Your task to perform on an android device: allow cookies in the chrome app Image 0: 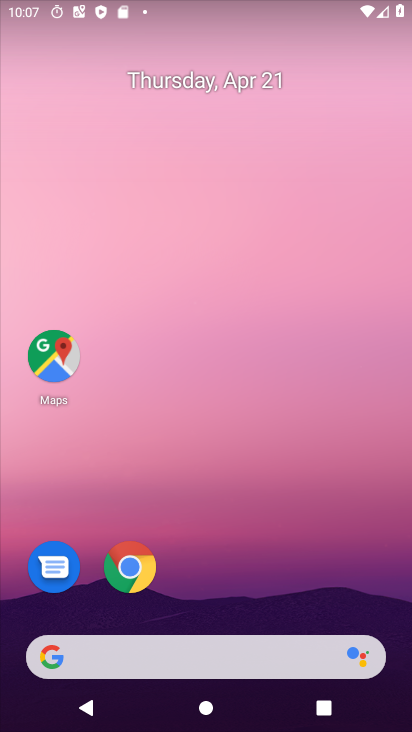
Step 0: click (124, 536)
Your task to perform on an android device: allow cookies in the chrome app Image 1: 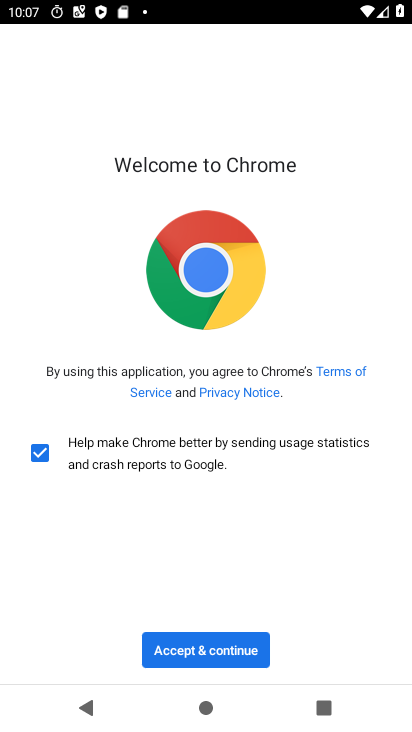
Step 1: click (201, 658)
Your task to perform on an android device: allow cookies in the chrome app Image 2: 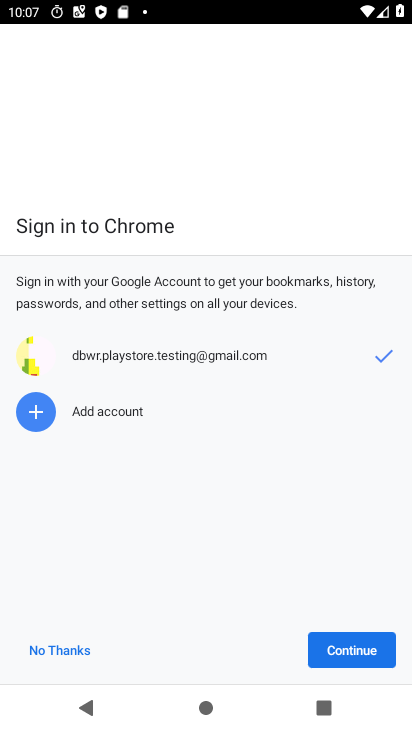
Step 2: click (339, 639)
Your task to perform on an android device: allow cookies in the chrome app Image 3: 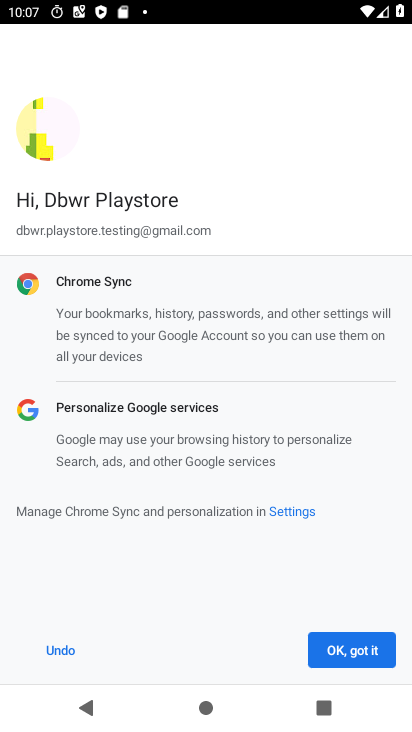
Step 3: click (344, 651)
Your task to perform on an android device: allow cookies in the chrome app Image 4: 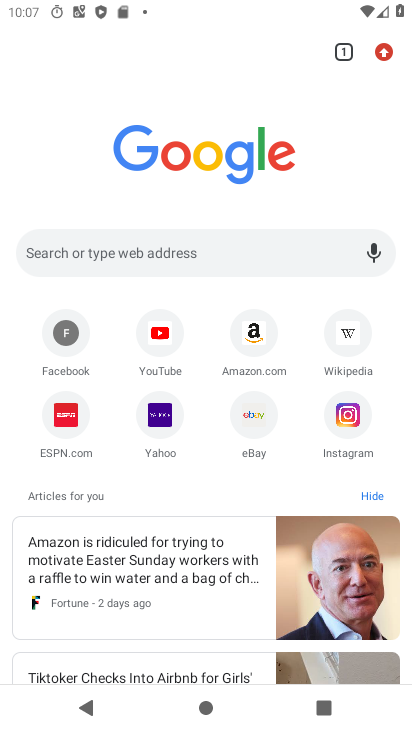
Step 4: click (381, 52)
Your task to perform on an android device: allow cookies in the chrome app Image 5: 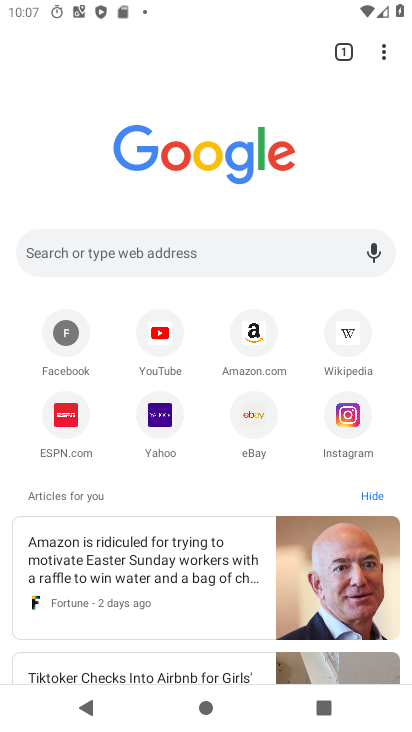
Step 5: click (391, 48)
Your task to perform on an android device: allow cookies in the chrome app Image 6: 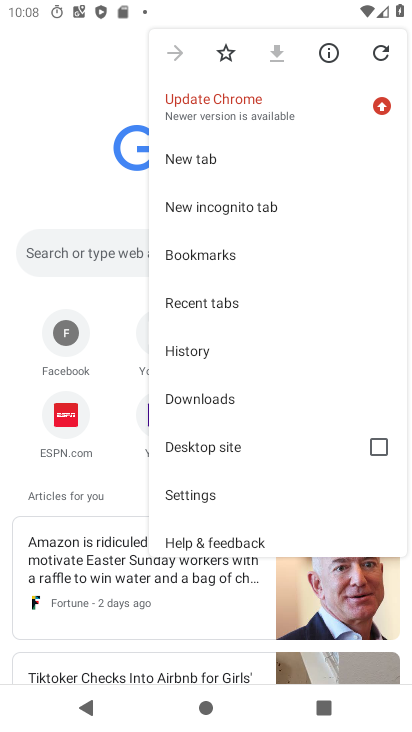
Step 6: click (209, 488)
Your task to perform on an android device: allow cookies in the chrome app Image 7: 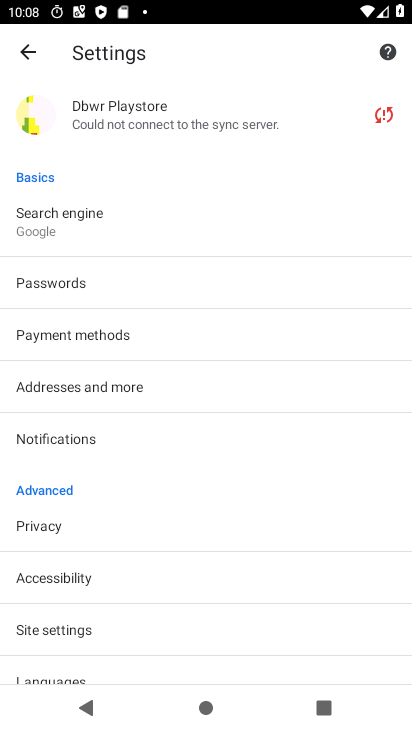
Step 7: click (37, 619)
Your task to perform on an android device: allow cookies in the chrome app Image 8: 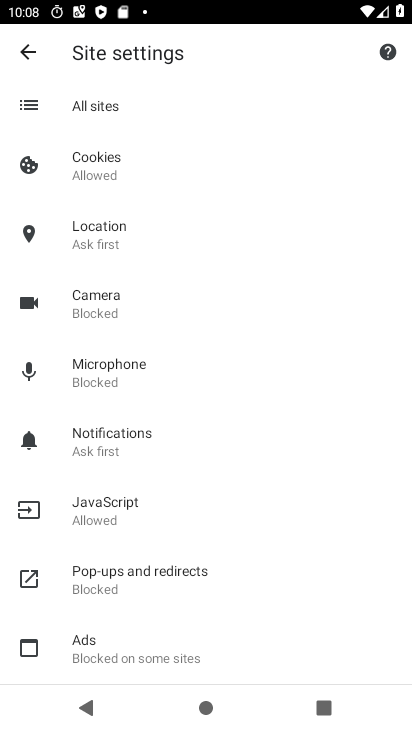
Step 8: click (123, 167)
Your task to perform on an android device: allow cookies in the chrome app Image 9: 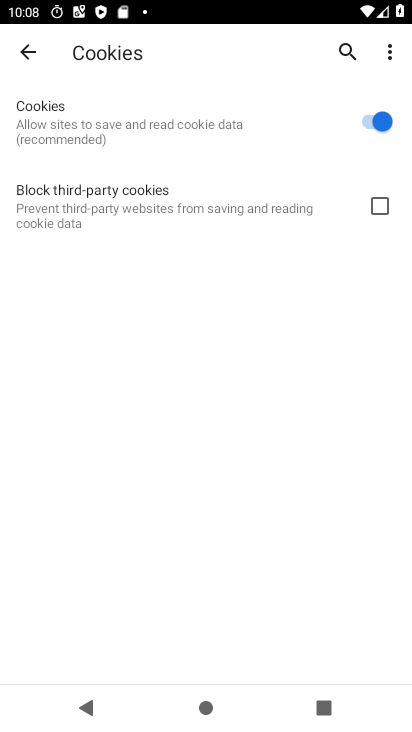
Step 9: task complete